Your task to perform on an android device: See recent photos Image 0: 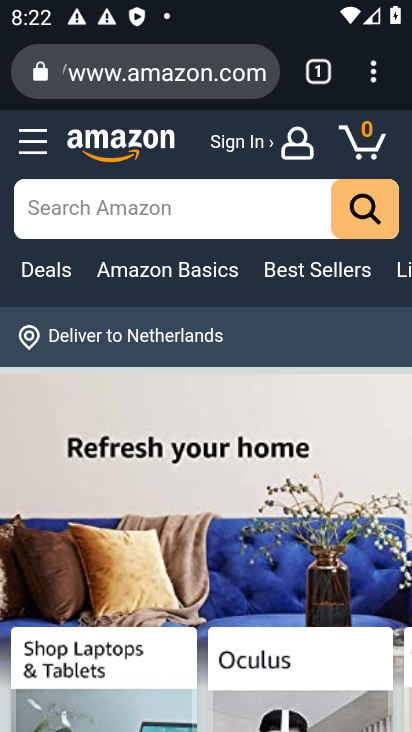
Step 0: press home button
Your task to perform on an android device: See recent photos Image 1: 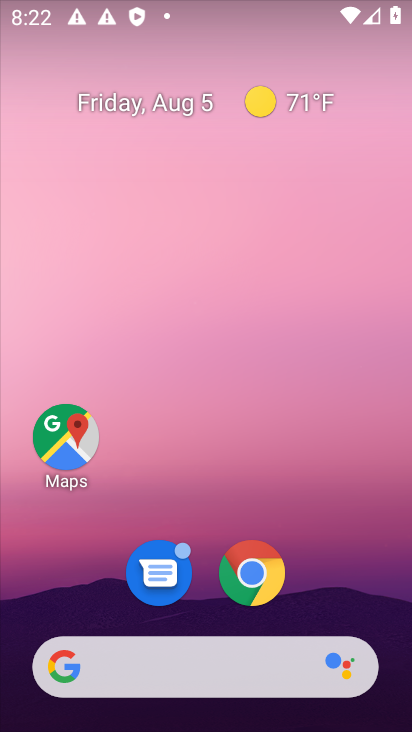
Step 1: drag from (205, 618) to (239, 103)
Your task to perform on an android device: See recent photos Image 2: 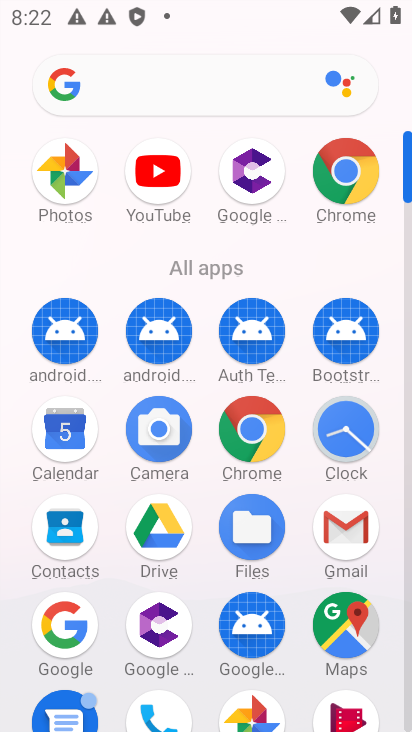
Step 2: drag from (206, 584) to (204, 176)
Your task to perform on an android device: See recent photos Image 3: 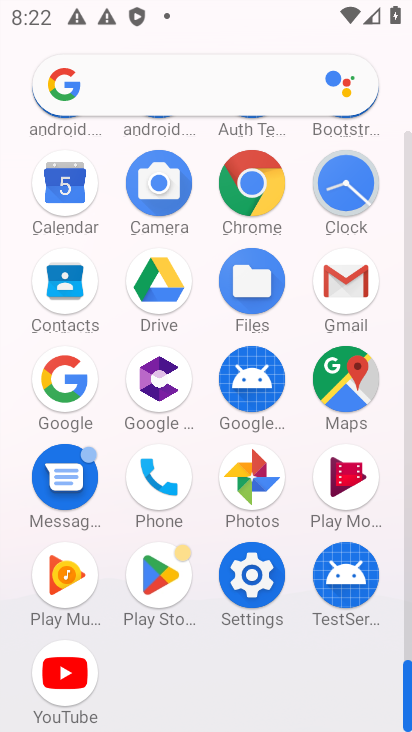
Step 3: click (248, 468)
Your task to perform on an android device: See recent photos Image 4: 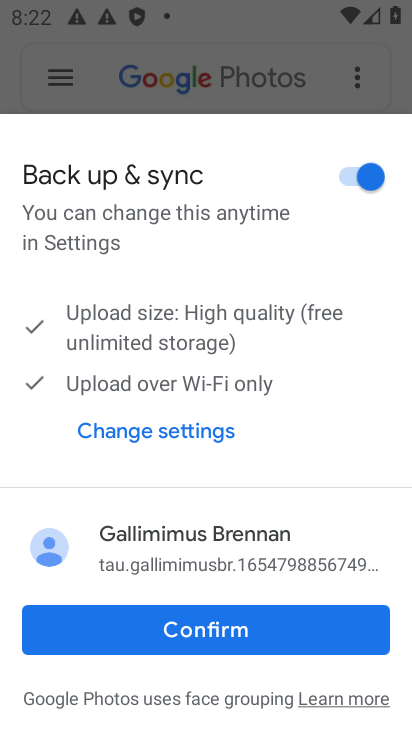
Step 4: click (204, 624)
Your task to perform on an android device: See recent photos Image 5: 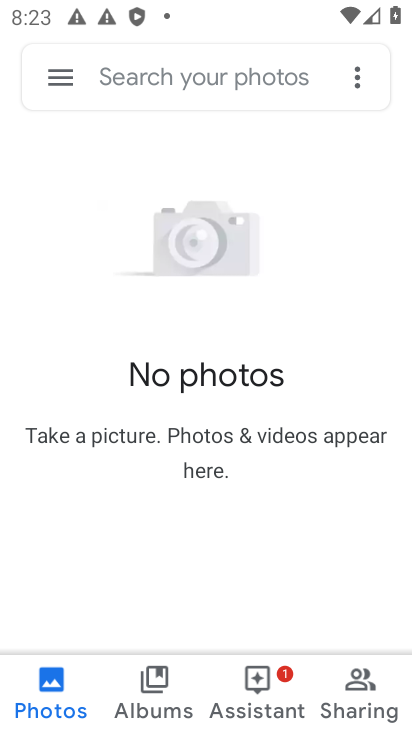
Step 5: task complete